Your task to perform on an android device: set an alarm Image 0: 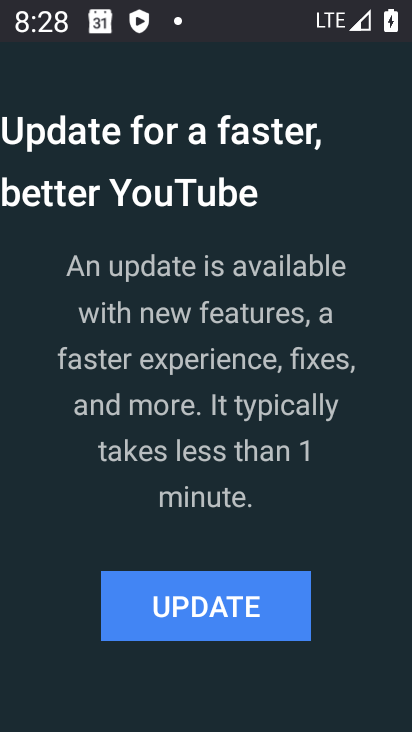
Step 0: press home button
Your task to perform on an android device: set an alarm Image 1: 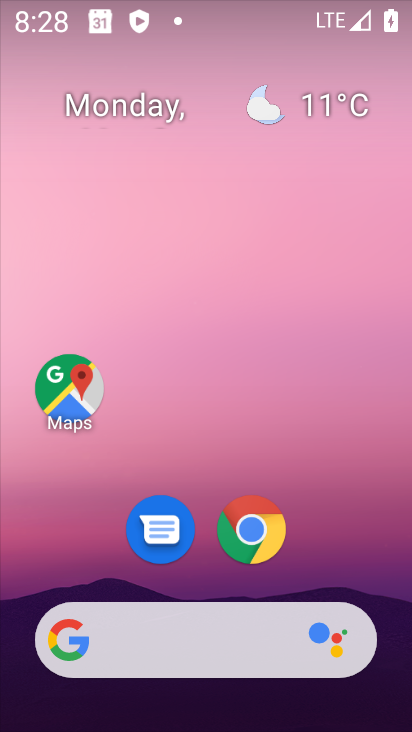
Step 1: drag from (246, 631) to (256, 101)
Your task to perform on an android device: set an alarm Image 2: 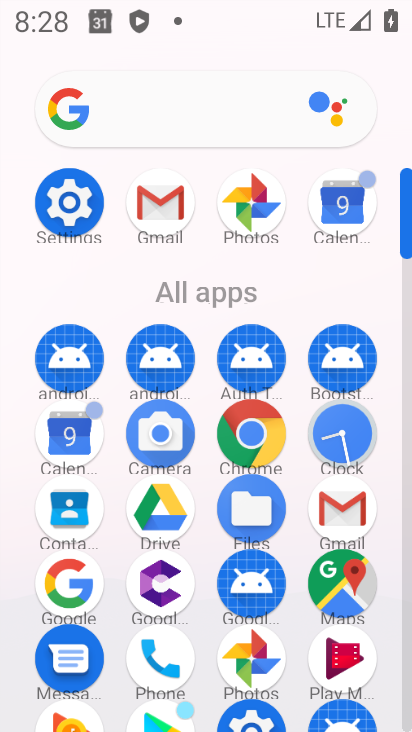
Step 2: click (345, 428)
Your task to perform on an android device: set an alarm Image 3: 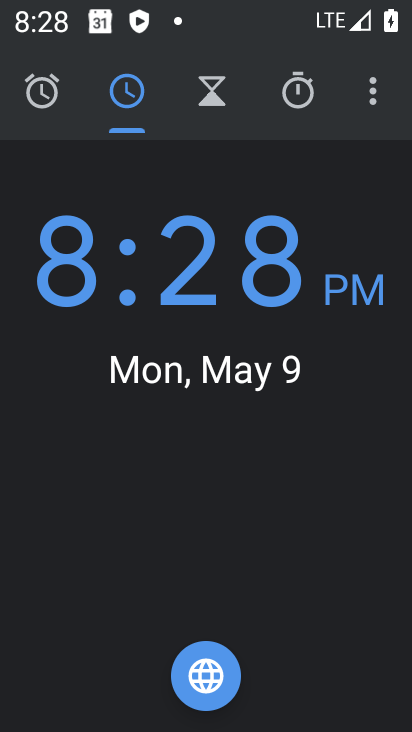
Step 3: click (66, 103)
Your task to perform on an android device: set an alarm Image 4: 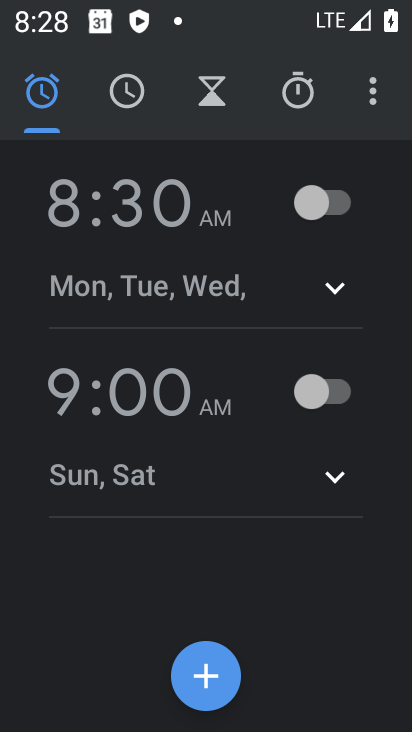
Step 4: click (222, 680)
Your task to perform on an android device: set an alarm Image 5: 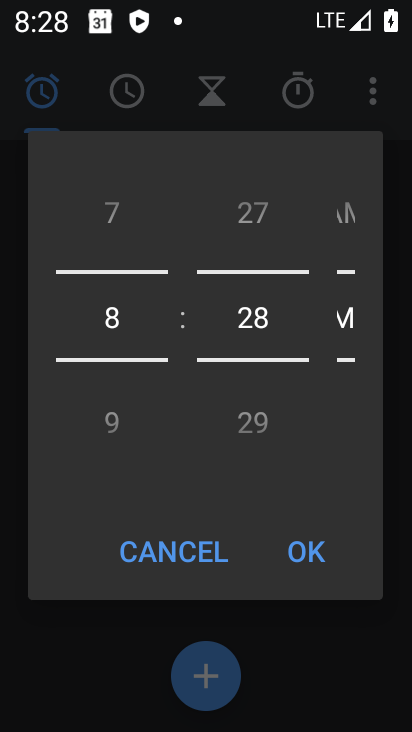
Step 5: drag from (123, 420) to (120, 1)
Your task to perform on an android device: set an alarm Image 6: 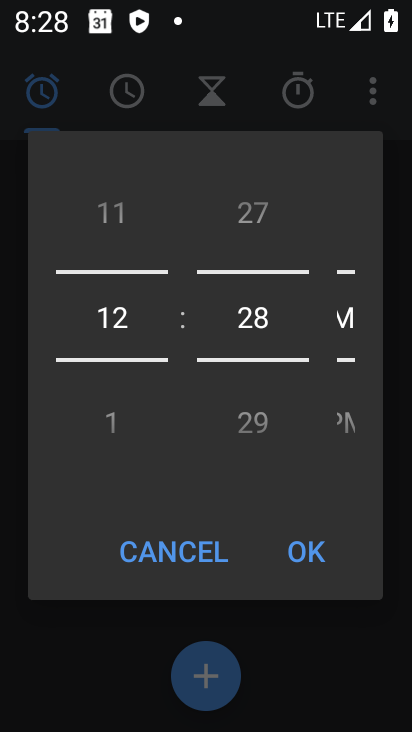
Step 6: click (318, 554)
Your task to perform on an android device: set an alarm Image 7: 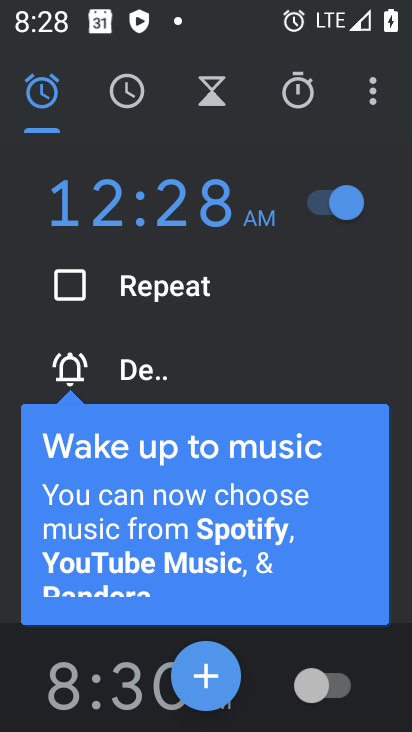
Step 7: task complete